Your task to perform on an android device: What's on my calendar today? Image 0: 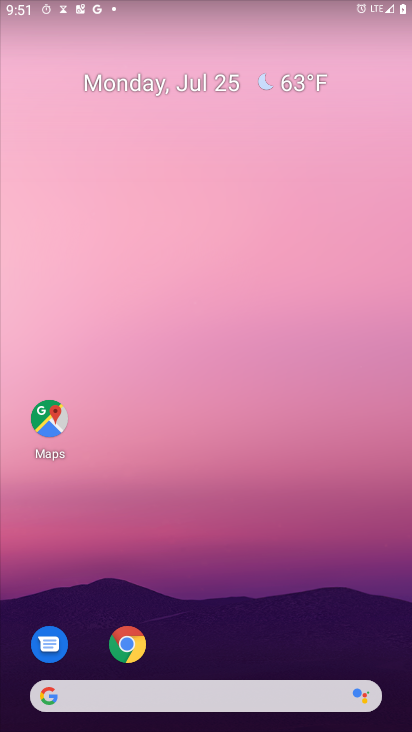
Step 0: drag from (146, 451) to (146, 337)
Your task to perform on an android device: What's on my calendar today? Image 1: 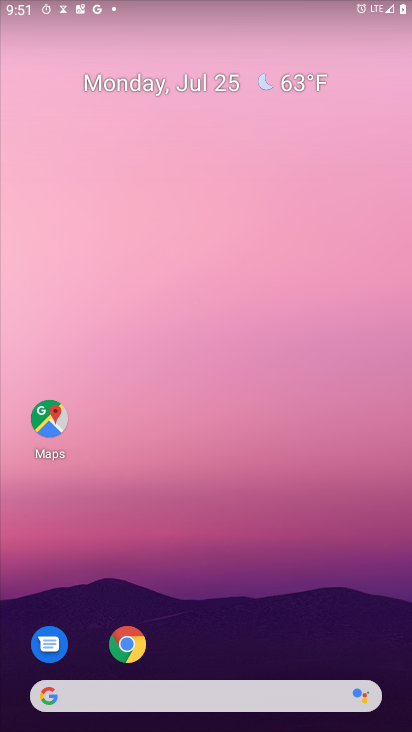
Step 1: drag from (192, 581) to (195, 334)
Your task to perform on an android device: What's on my calendar today? Image 2: 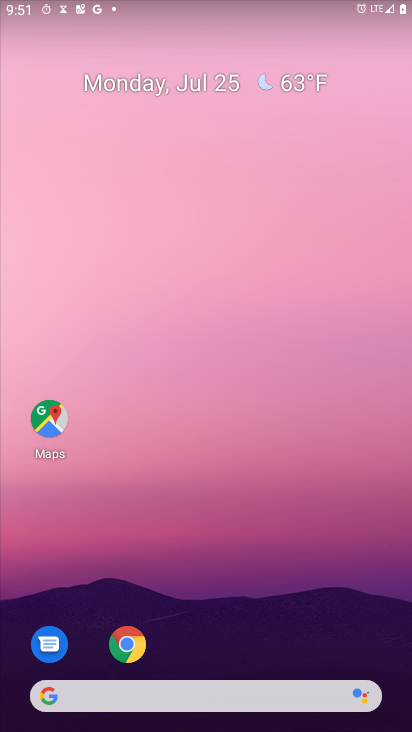
Step 2: drag from (258, 633) to (272, 285)
Your task to perform on an android device: What's on my calendar today? Image 3: 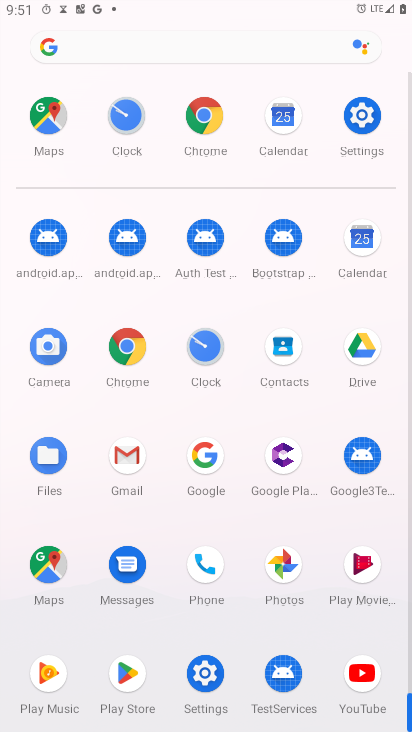
Step 3: click (367, 249)
Your task to perform on an android device: What's on my calendar today? Image 4: 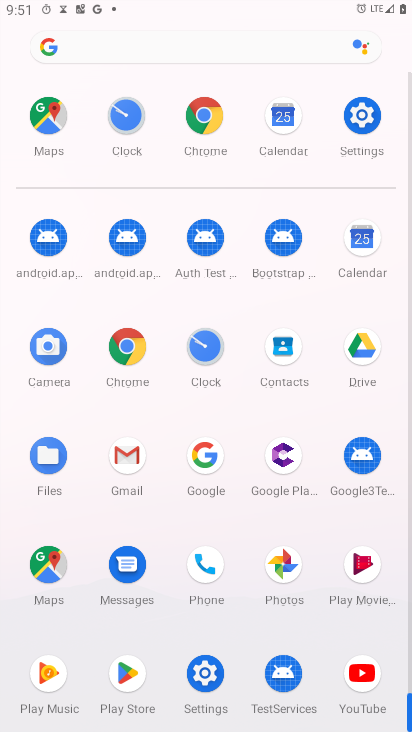
Step 4: click (355, 253)
Your task to perform on an android device: What's on my calendar today? Image 5: 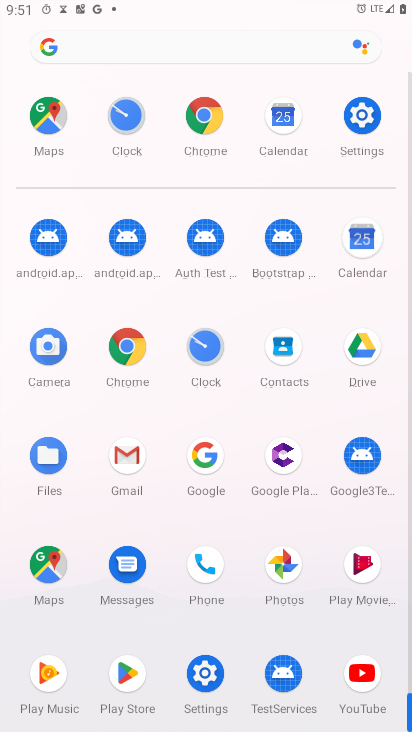
Step 5: click (356, 255)
Your task to perform on an android device: What's on my calendar today? Image 6: 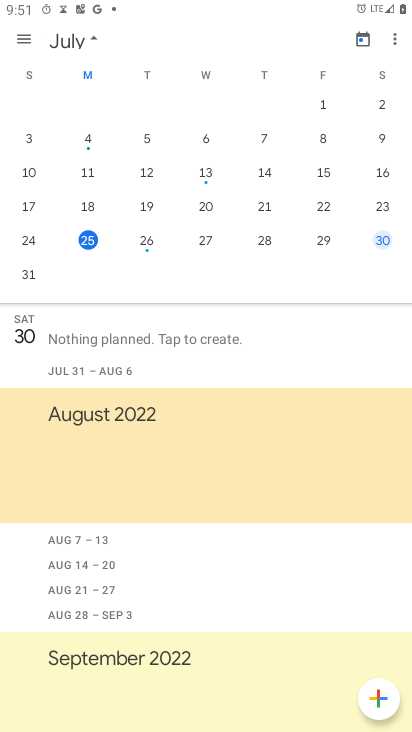
Step 6: click (318, 233)
Your task to perform on an android device: What's on my calendar today? Image 7: 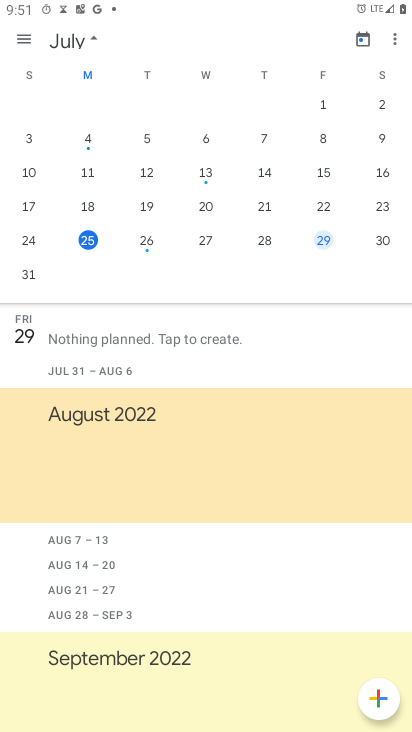
Step 7: task complete